Your task to perform on an android device: turn off data saver in the chrome app Image 0: 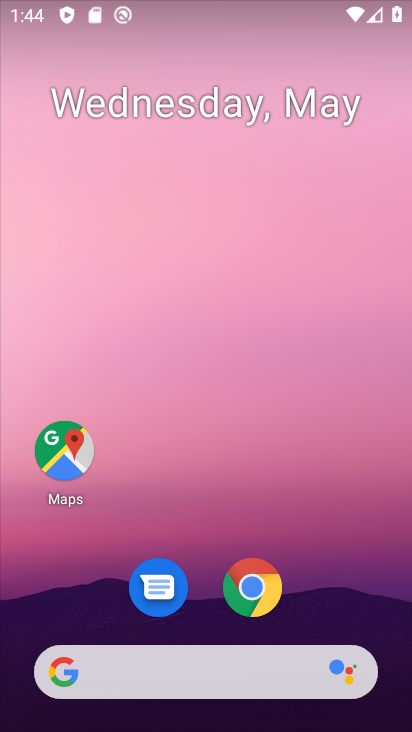
Step 0: click (257, 594)
Your task to perform on an android device: turn off data saver in the chrome app Image 1: 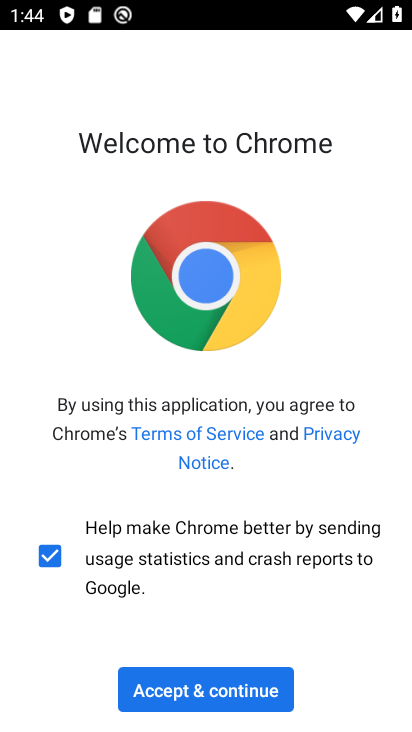
Step 1: click (149, 682)
Your task to perform on an android device: turn off data saver in the chrome app Image 2: 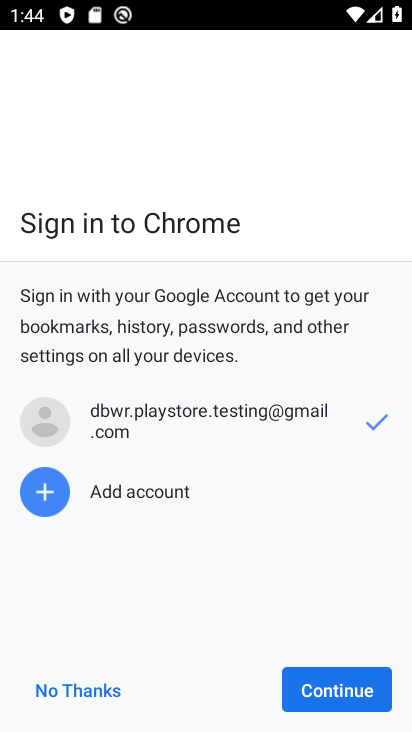
Step 2: click (330, 703)
Your task to perform on an android device: turn off data saver in the chrome app Image 3: 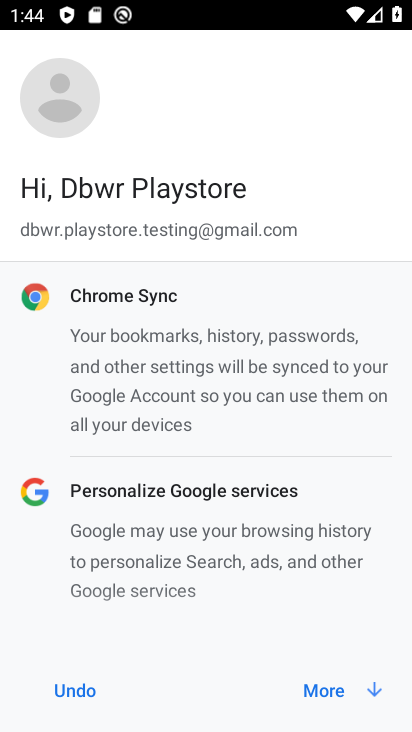
Step 3: click (344, 700)
Your task to perform on an android device: turn off data saver in the chrome app Image 4: 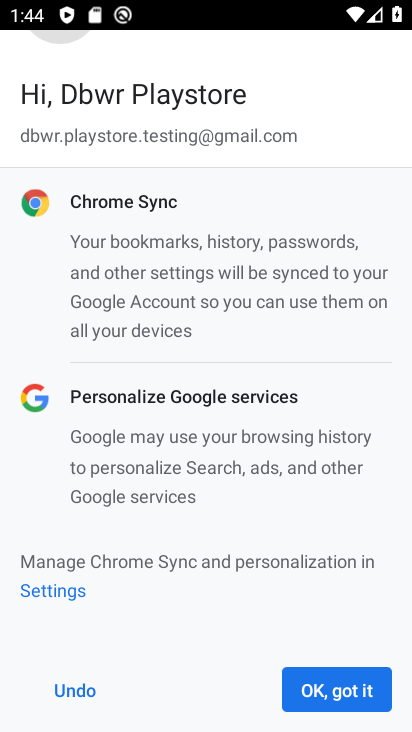
Step 4: click (342, 698)
Your task to perform on an android device: turn off data saver in the chrome app Image 5: 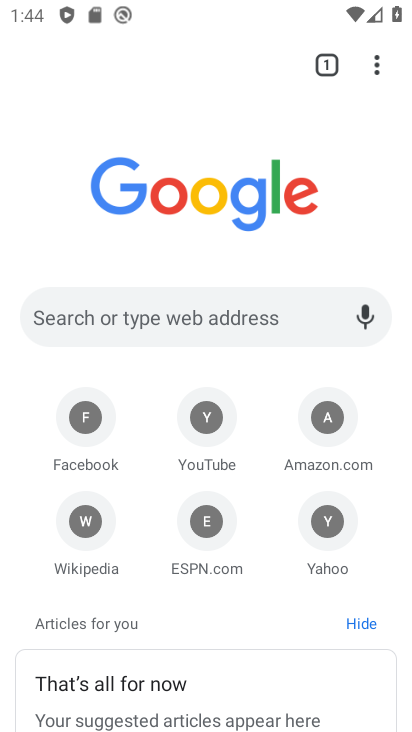
Step 5: click (374, 62)
Your task to perform on an android device: turn off data saver in the chrome app Image 6: 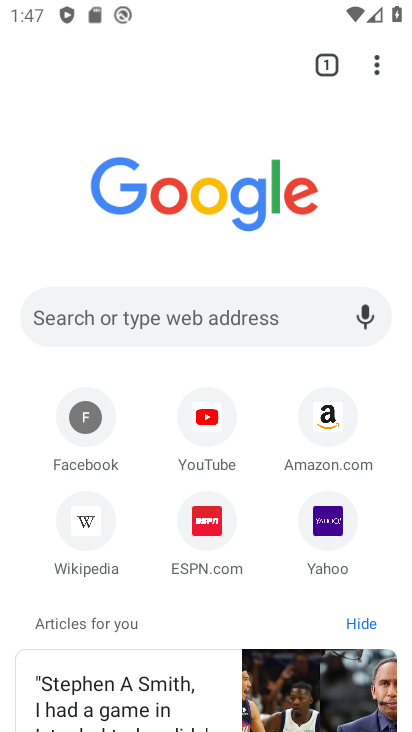
Step 6: click (375, 45)
Your task to perform on an android device: turn off data saver in the chrome app Image 7: 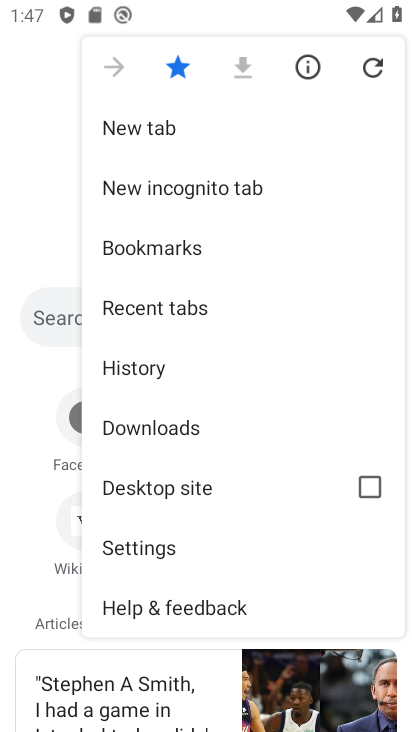
Step 7: click (143, 543)
Your task to perform on an android device: turn off data saver in the chrome app Image 8: 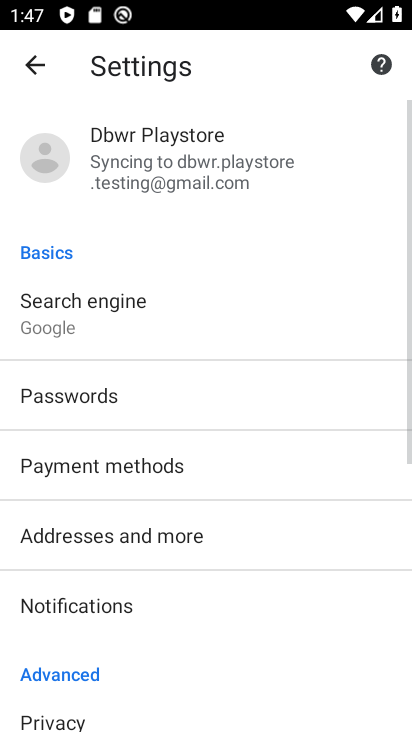
Step 8: drag from (155, 542) to (104, 199)
Your task to perform on an android device: turn off data saver in the chrome app Image 9: 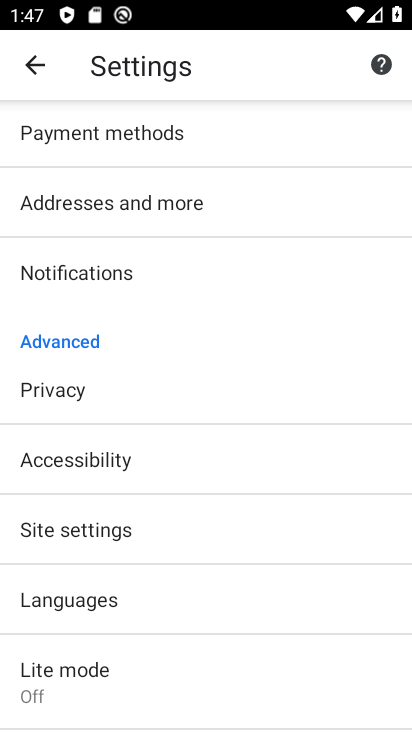
Step 9: click (80, 669)
Your task to perform on an android device: turn off data saver in the chrome app Image 10: 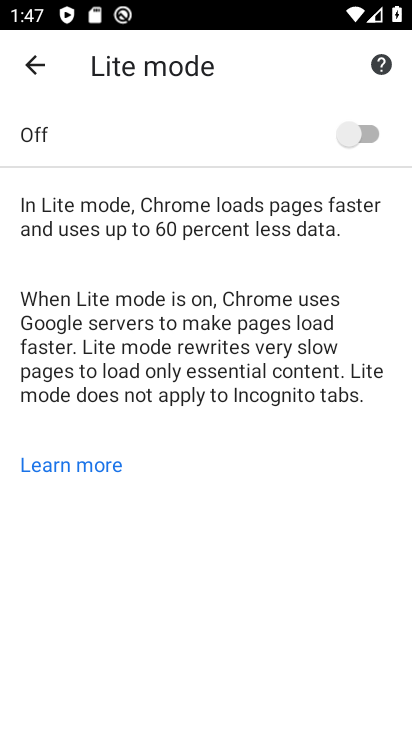
Step 10: task complete